Your task to perform on an android device: What's the weather going to be this weekend? Image 0: 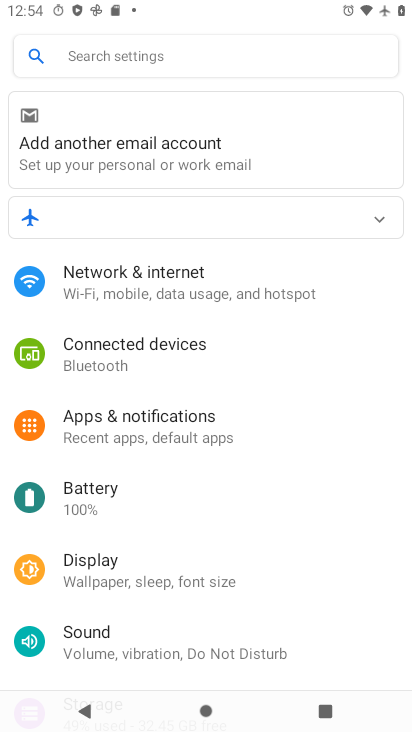
Step 0: press home button
Your task to perform on an android device: What's the weather going to be this weekend? Image 1: 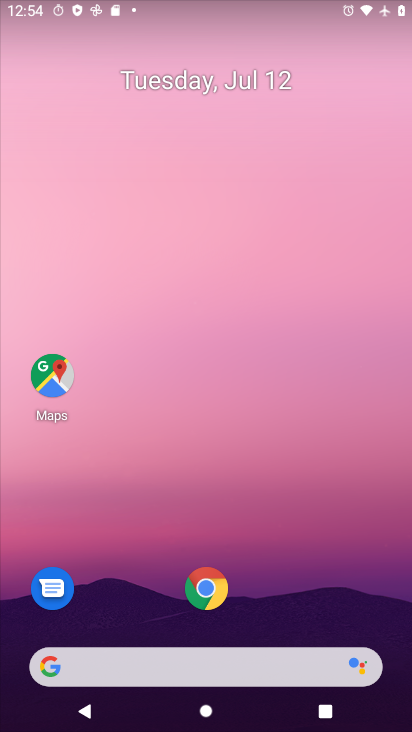
Step 1: click (193, 664)
Your task to perform on an android device: What's the weather going to be this weekend? Image 2: 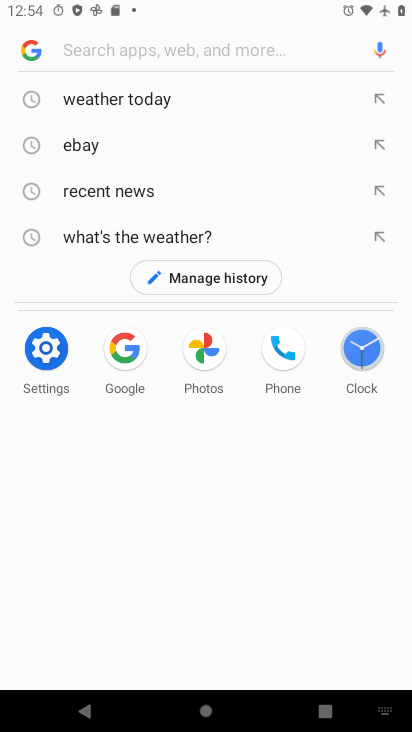
Step 2: type "weather going to be this weekend"
Your task to perform on an android device: What's the weather going to be this weekend? Image 3: 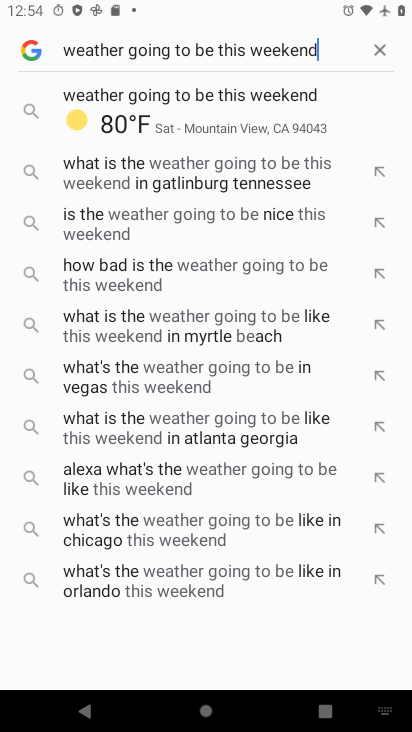
Step 3: click (207, 93)
Your task to perform on an android device: What's the weather going to be this weekend? Image 4: 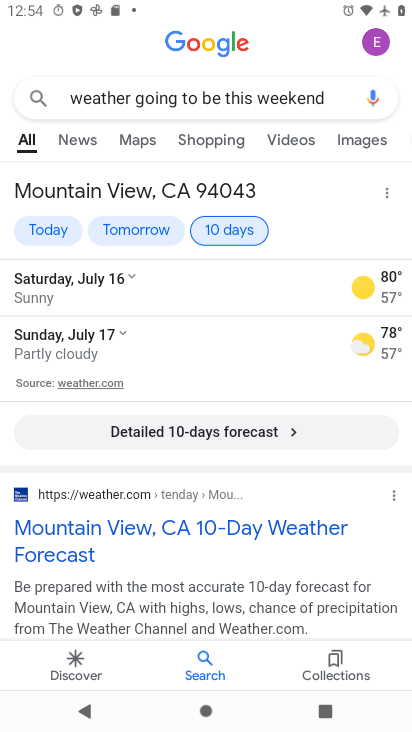
Step 4: task complete